Your task to perform on an android device: Open the phone app and click the voicemail tab. Image 0: 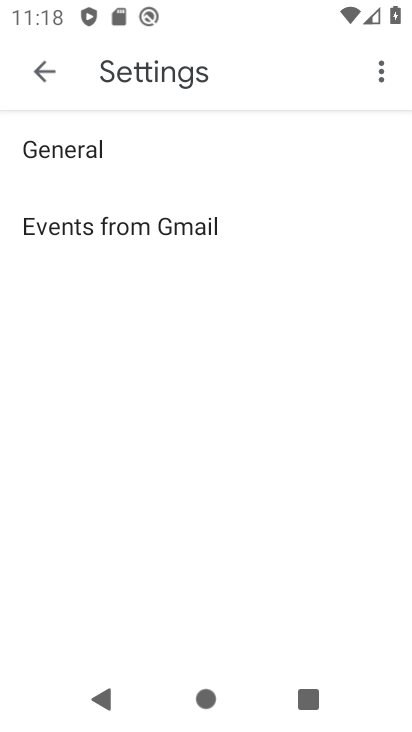
Step 0: press home button
Your task to perform on an android device: Open the phone app and click the voicemail tab. Image 1: 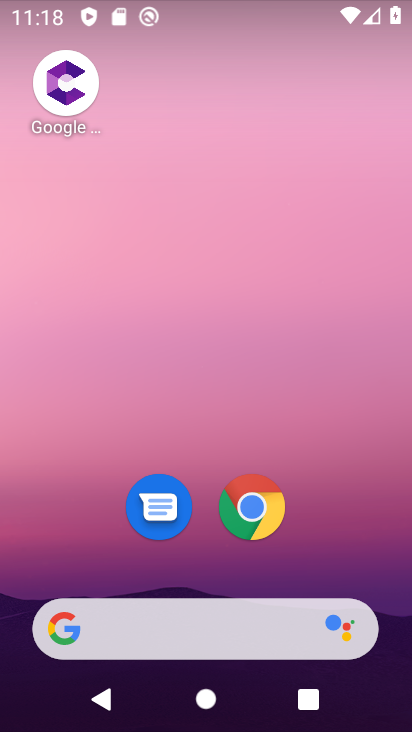
Step 1: drag from (370, 543) to (411, 210)
Your task to perform on an android device: Open the phone app and click the voicemail tab. Image 2: 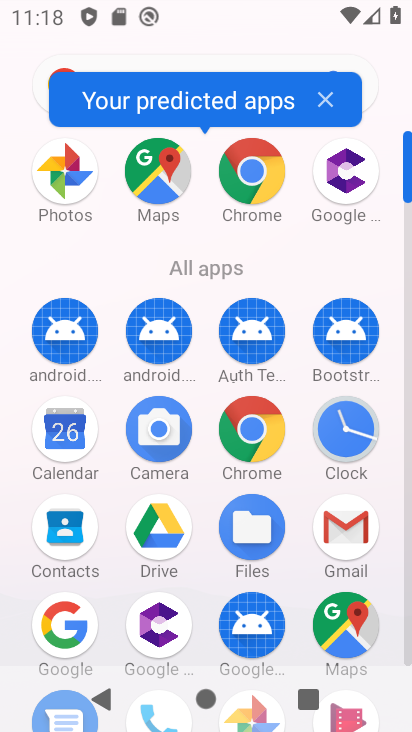
Step 2: drag from (301, 503) to (324, 245)
Your task to perform on an android device: Open the phone app and click the voicemail tab. Image 3: 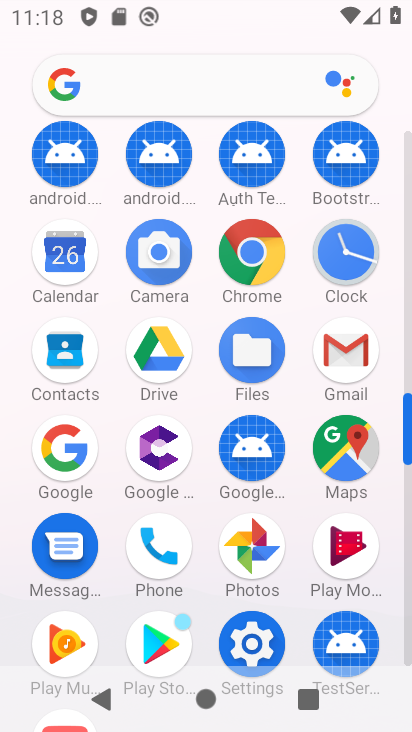
Step 3: click (172, 560)
Your task to perform on an android device: Open the phone app and click the voicemail tab. Image 4: 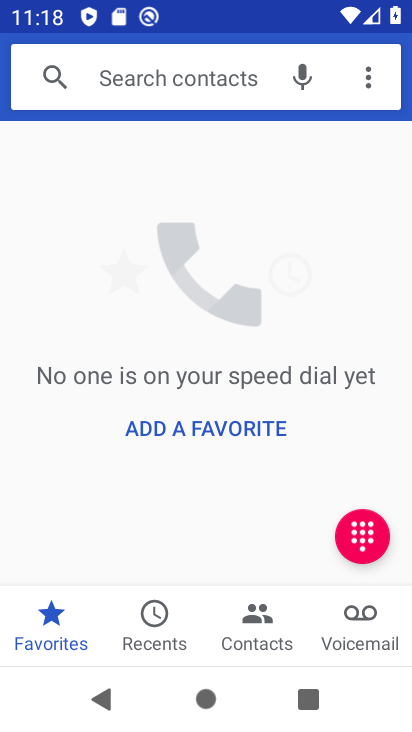
Step 4: click (342, 621)
Your task to perform on an android device: Open the phone app and click the voicemail tab. Image 5: 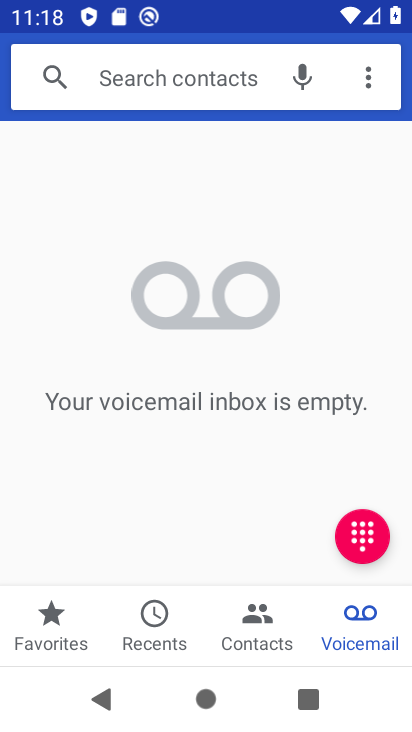
Step 5: task complete